Your task to perform on an android device: Search for "usb-b" on newegg, select the first entry, and add it to the cart. Image 0: 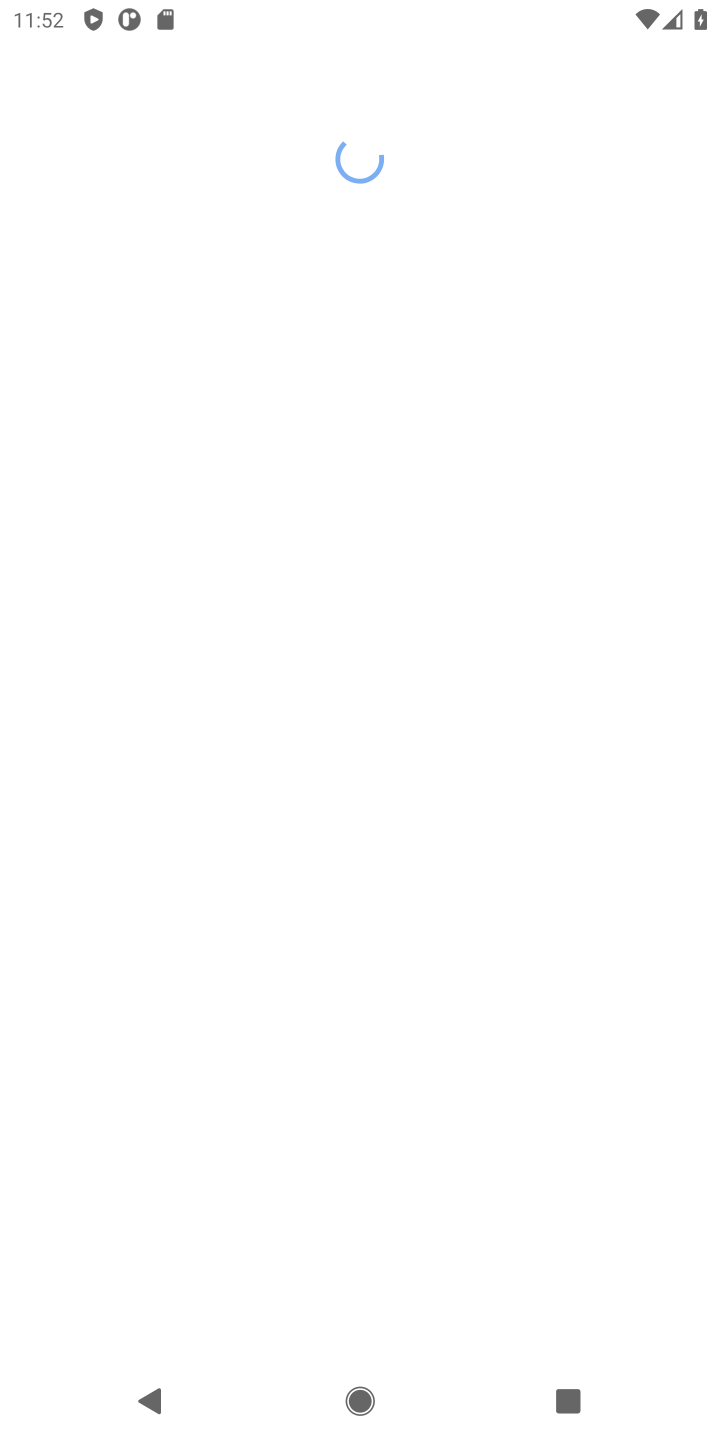
Step 0: click (507, 1150)
Your task to perform on an android device: Search for "usb-b" on newegg, select the first entry, and add it to the cart. Image 1: 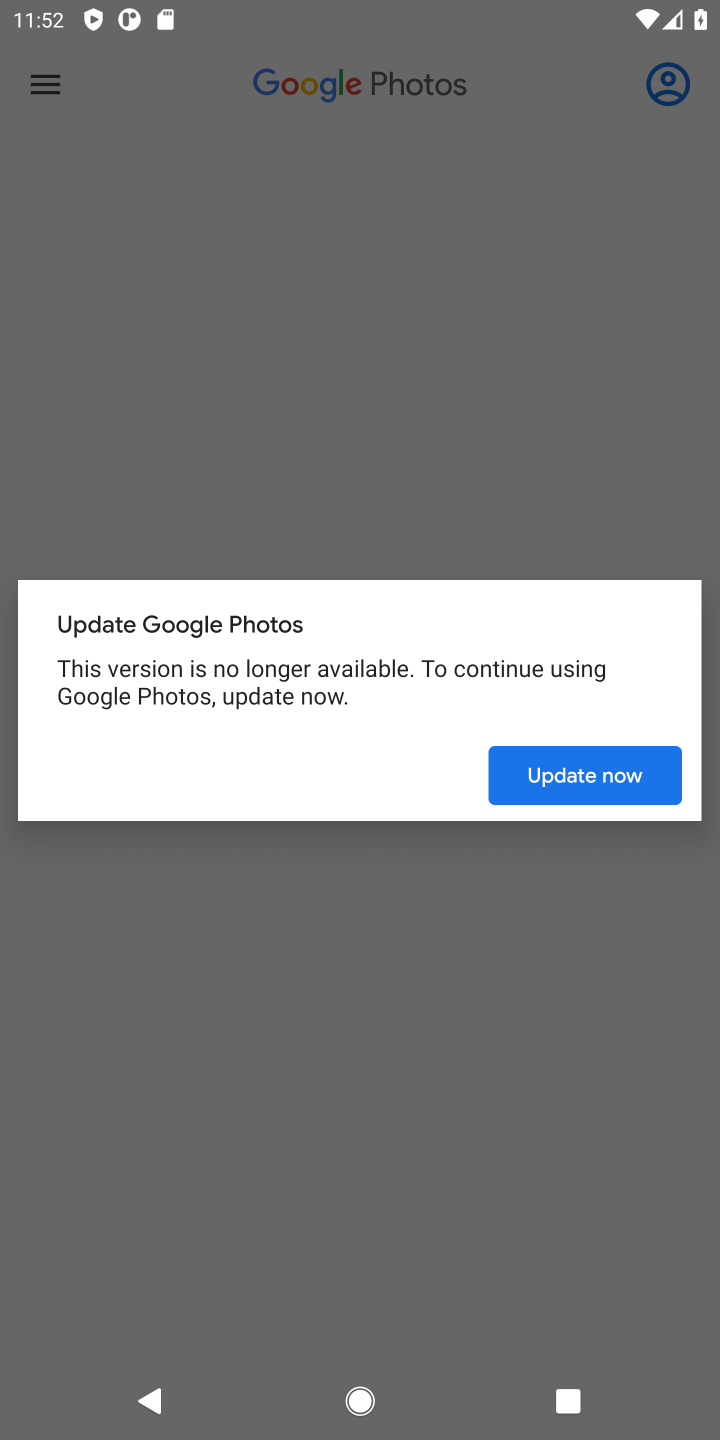
Step 1: press home button
Your task to perform on an android device: Search for "usb-b" on newegg, select the first entry, and add it to the cart. Image 2: 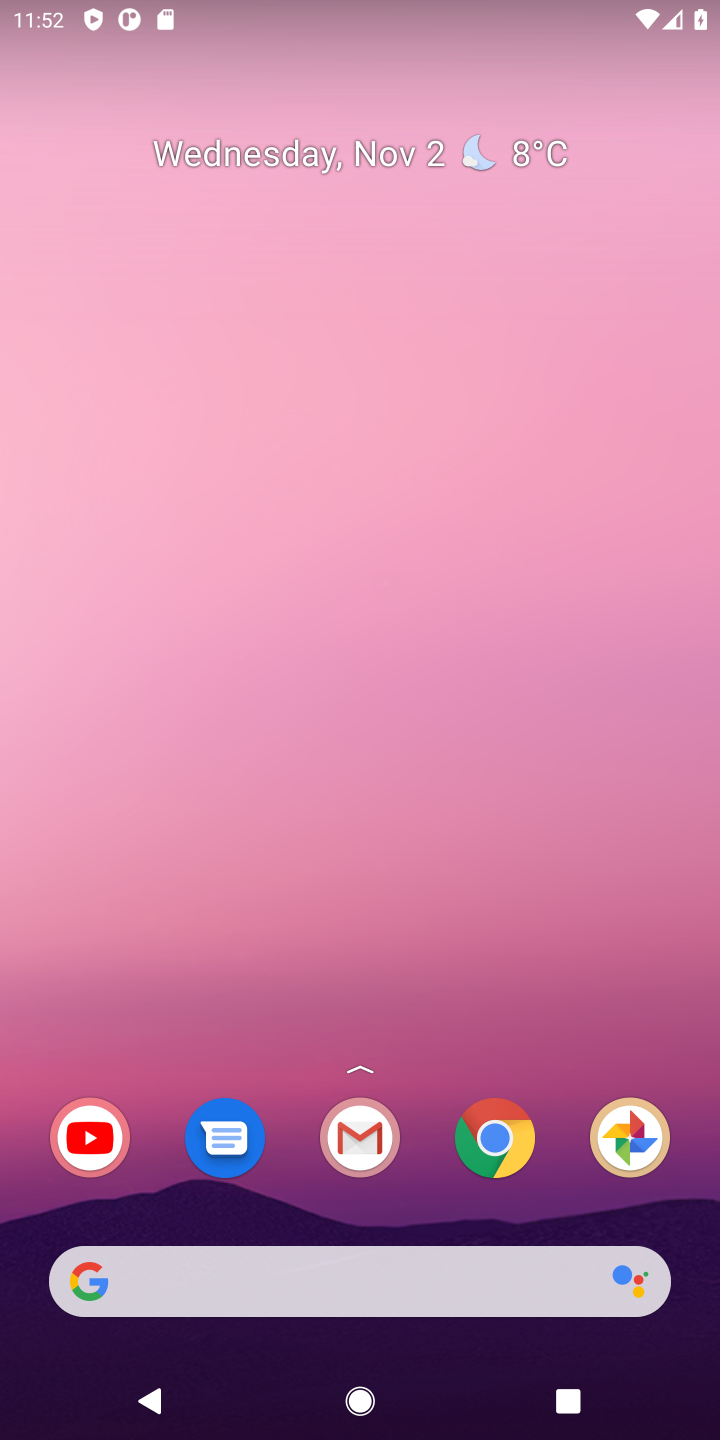
Step 2: click (472, 1139)
Your task to perform on an android device: Search for "usb-b" on newegg, select the first entry, and add it to the cart. Image 3: 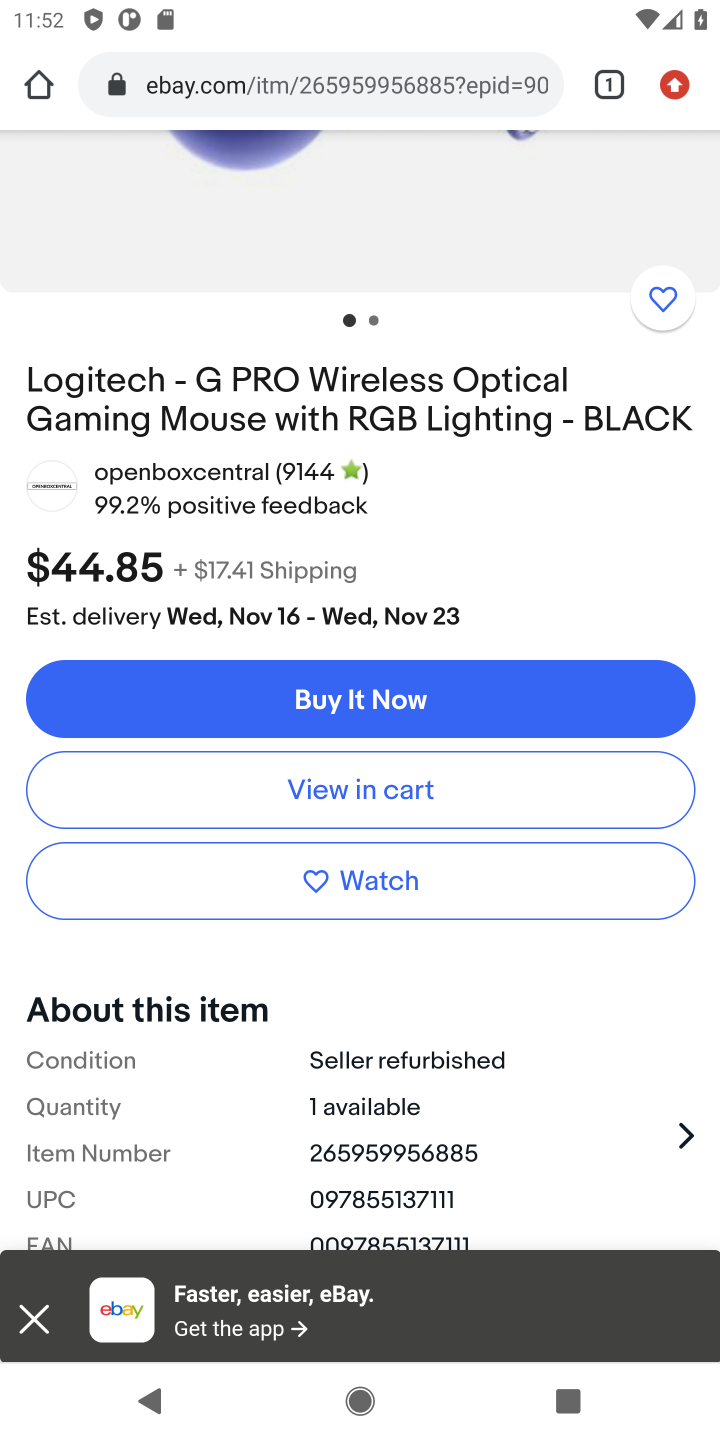
Step 3: click (303, 68)
Your task to perform on an android device: Search for "usb-b" on newegg, select the first entry, and add it to the cart. Image 4: 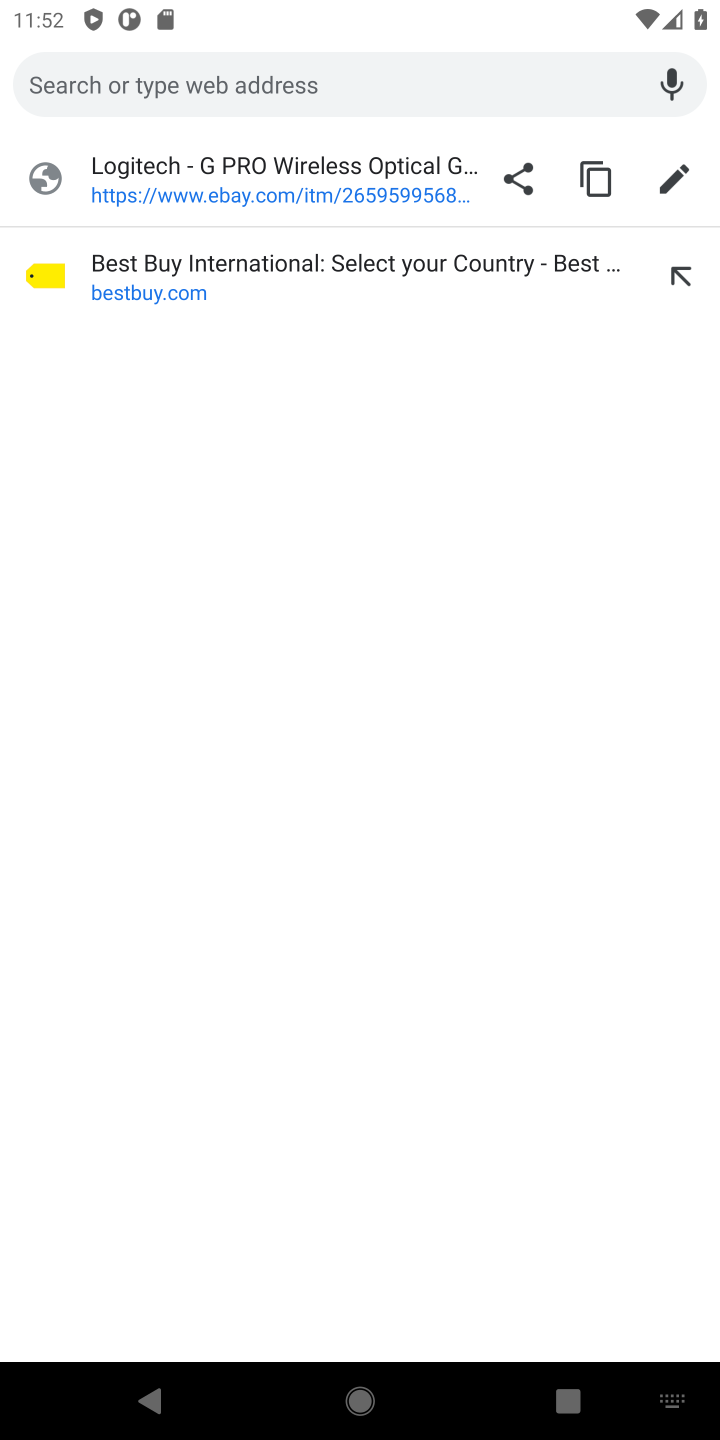
Step 4: type "newegg"
Your task to perform on an android device: Search for "usb-b" on newegg, select the first entry, and add it to the cart. Image 5: 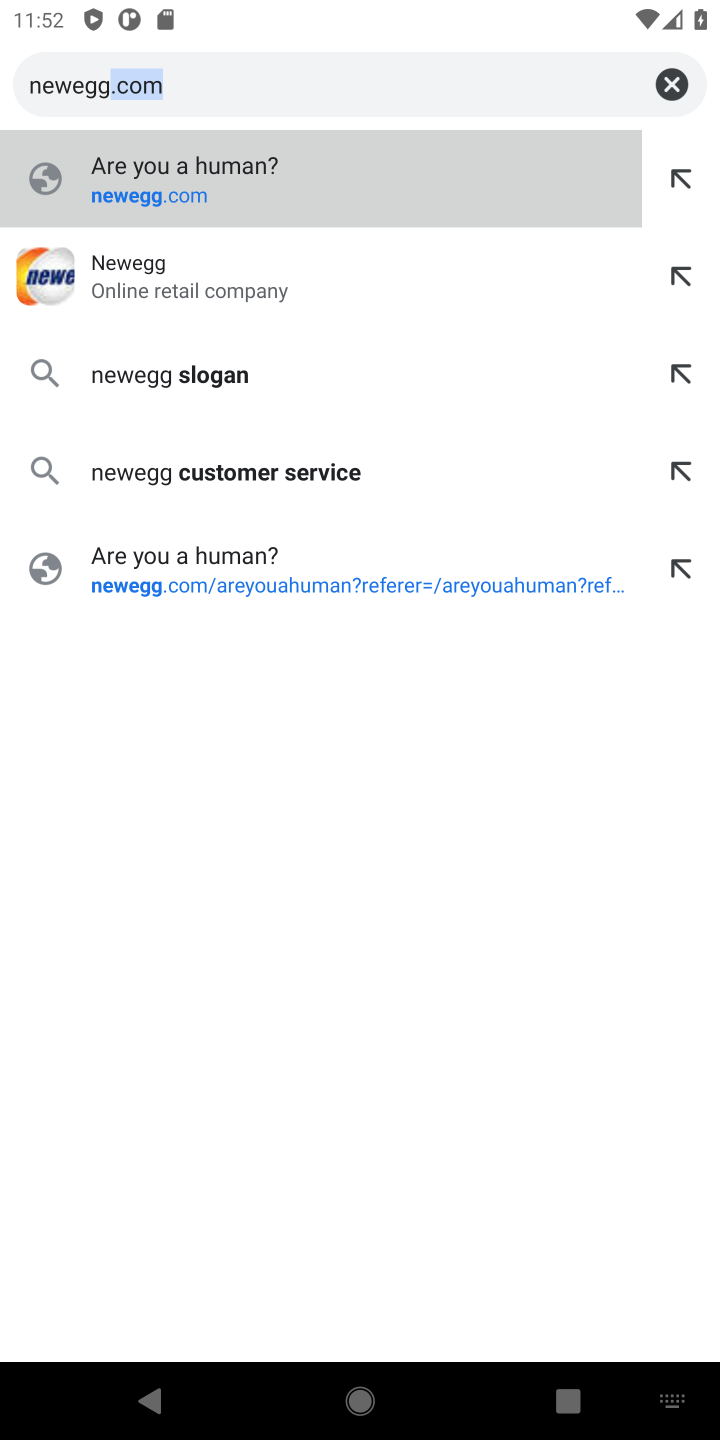
Step 5: click (194, 259)
Your task to perform on an android device: Search for "usb-b" on newegg, select the first entry, and add it to the cart. Image 6: 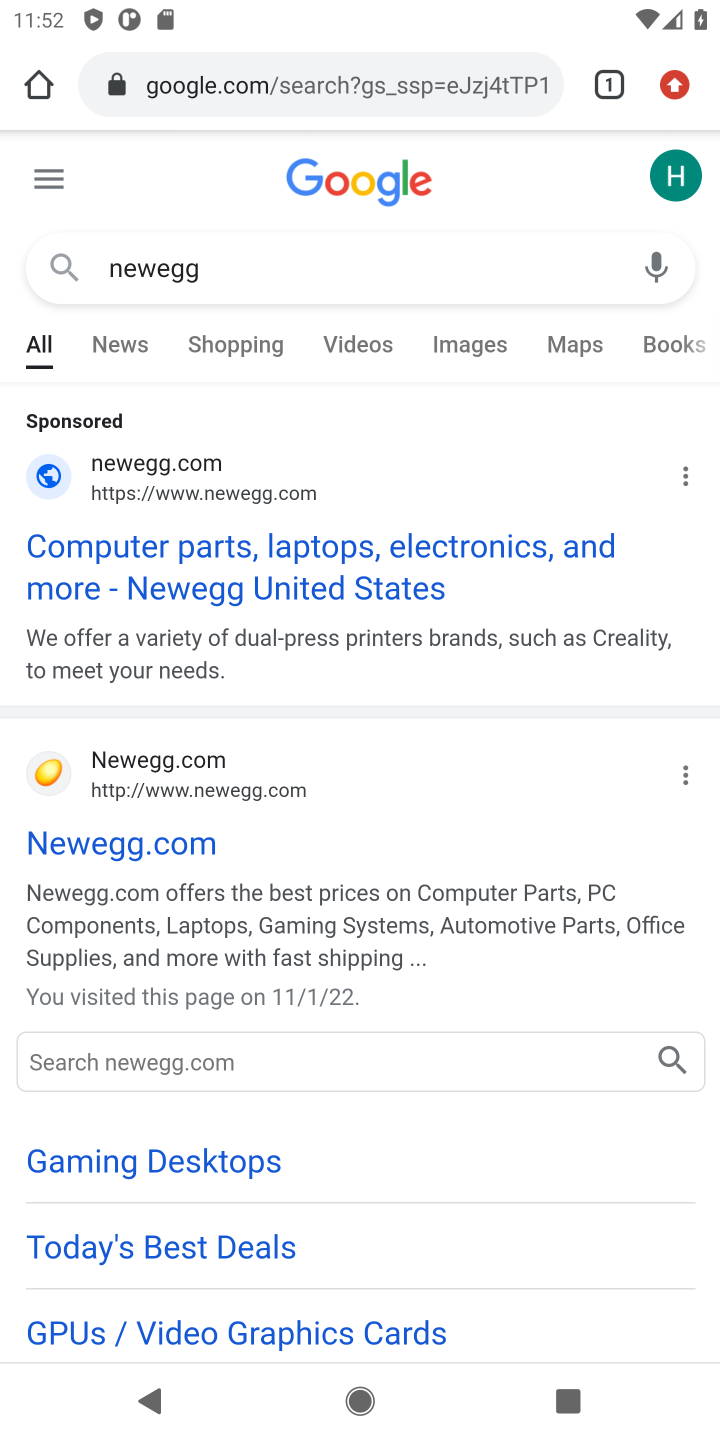
Step 6: click (187, 769)
Your task to perform on an android device: Search for "usb-b" on newegg, select the first entry, and add it to the cart. Image 7: 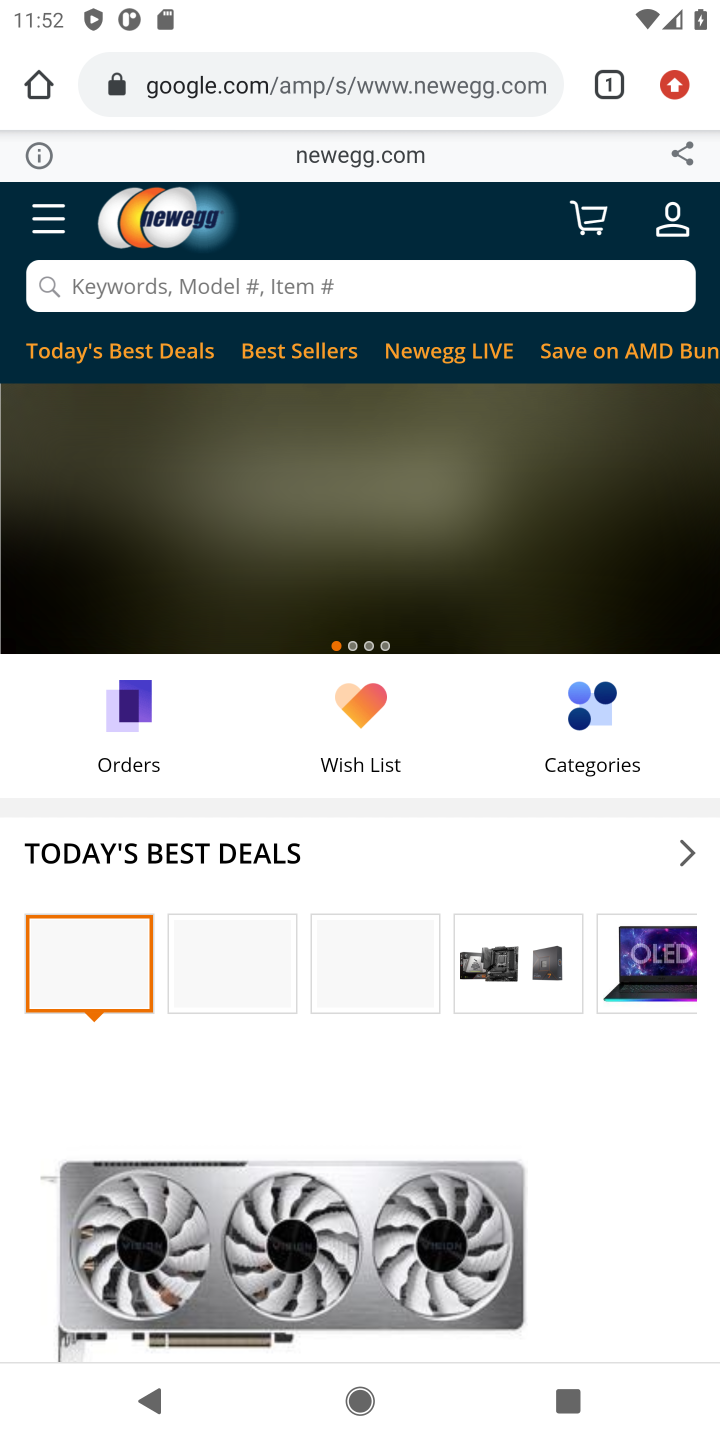
Step 7: click (249, 279)
Your task to perform on an android device: Search for "usb-b" on newegg, select the first entry, and add it to the cart. Image 8: 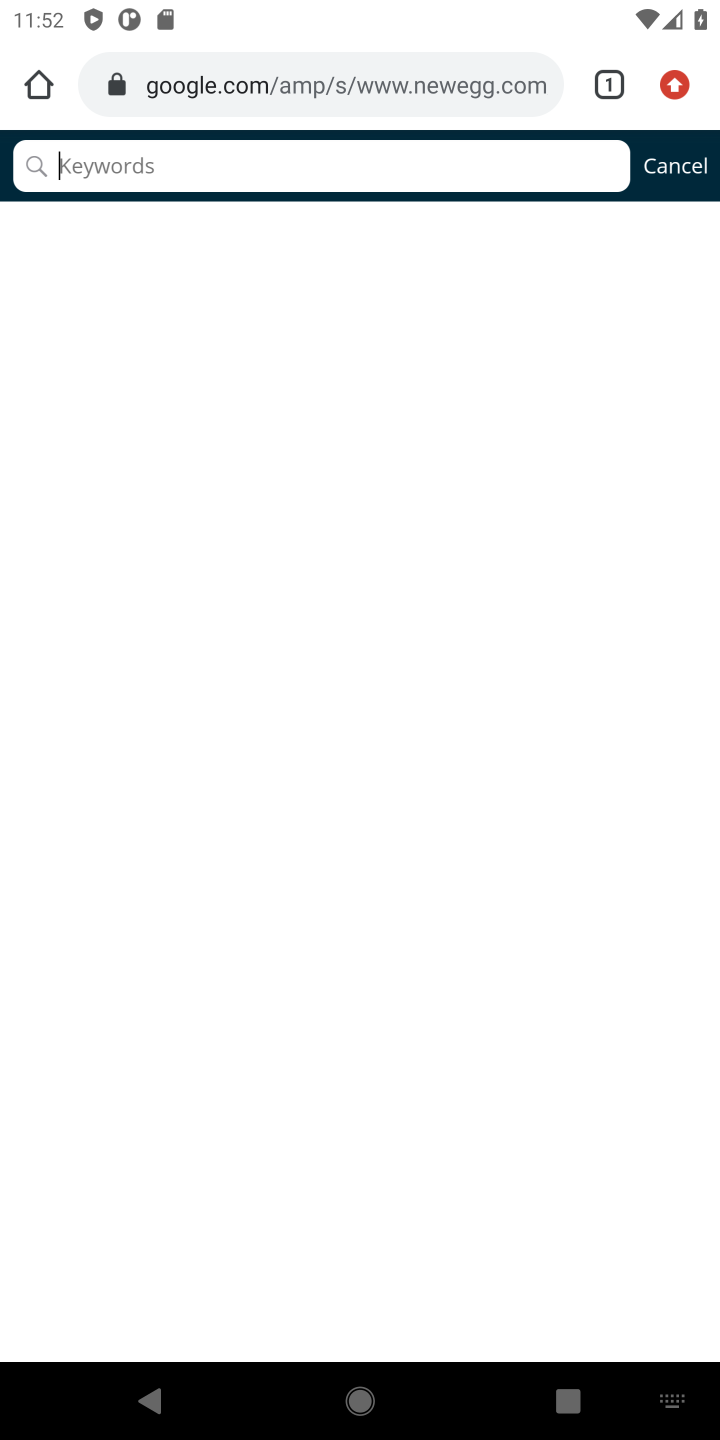
Step 8: type "usb-b"
Your task to perform on an android device: Search for "usb-b" on newegg, select the first entry, and add it to the cart. Image 9: 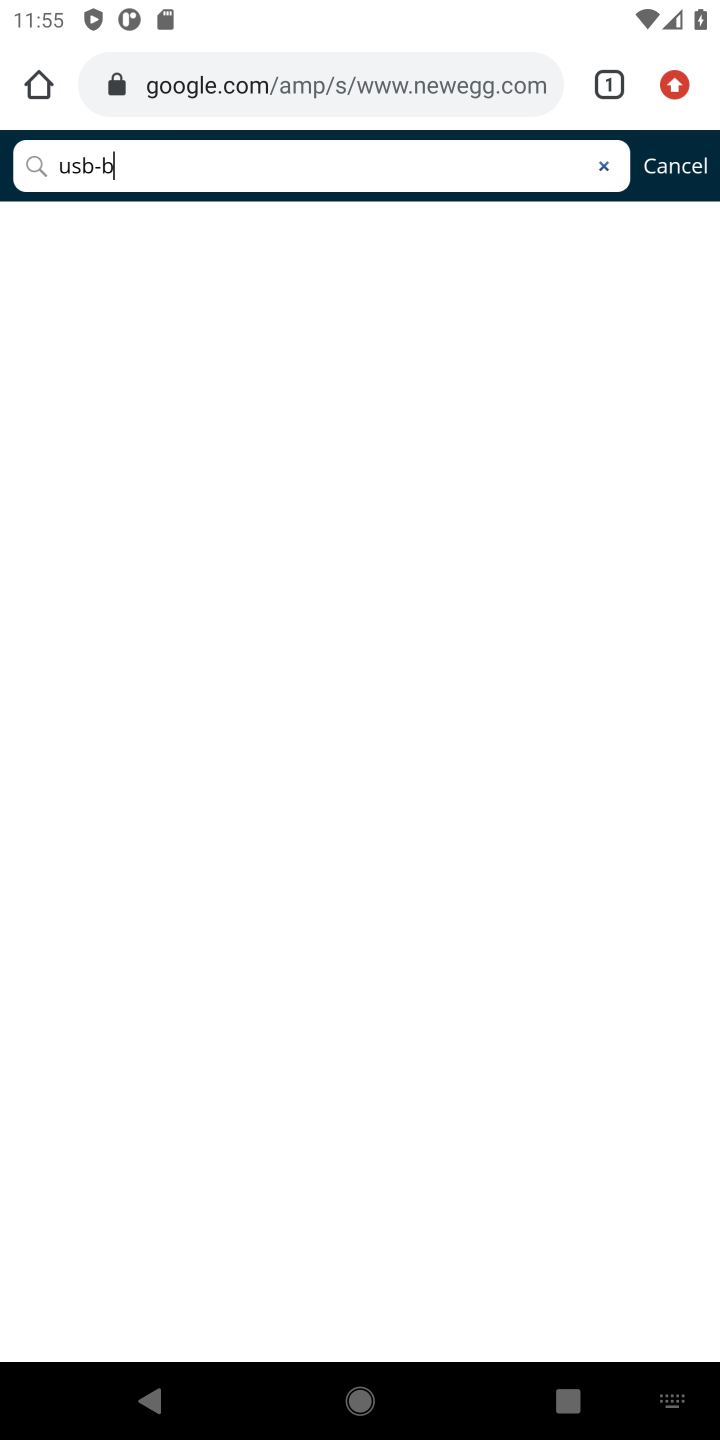
Step 9: task complete